Your task to perform on an android device: Open ESPN.com Image 0: 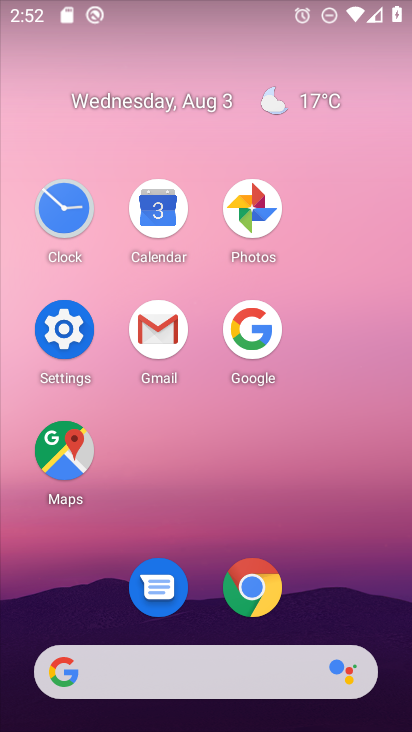
Step 0: click (241, 586)
Your task to perform on an android device: Open ESPN.com Image 1: 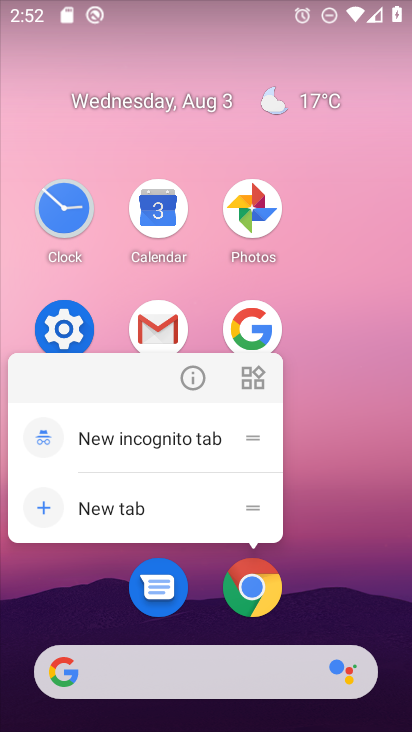
Step 1: click (251, 576)
Your task to perform on an android device: Open ESPN.com Image 2: 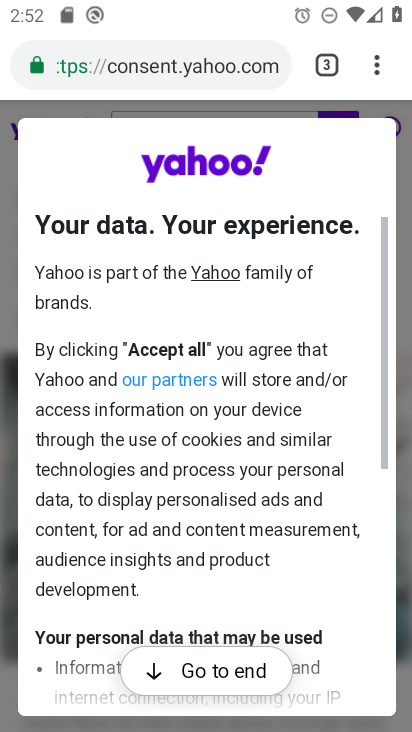
Step 2: click (326, 68)
Your task to perform on an android device: Open ESPN.com Image 3: 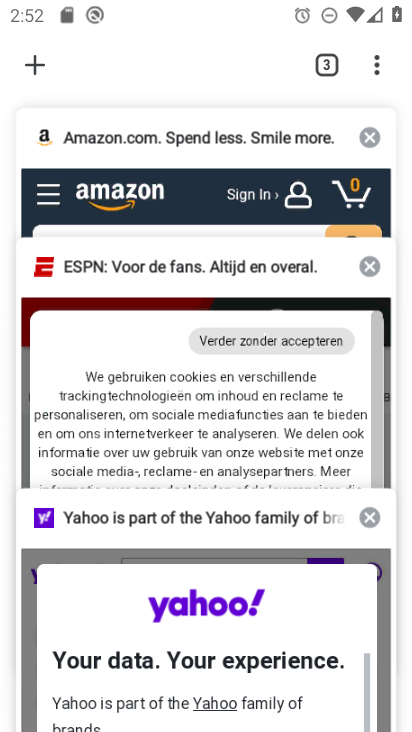
Step 3: click (34, 63)
Your task to perform on an android device: Open ESPN.com Image 4: 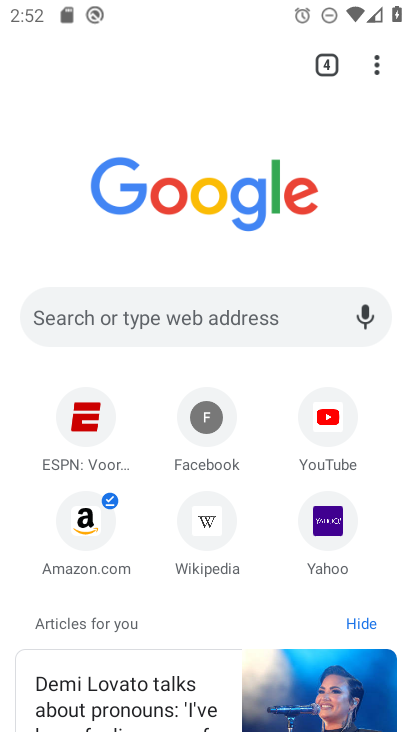
Step 4: click (102, 414)
Your task to perform on an android device: Open ESPN.com Image 5: 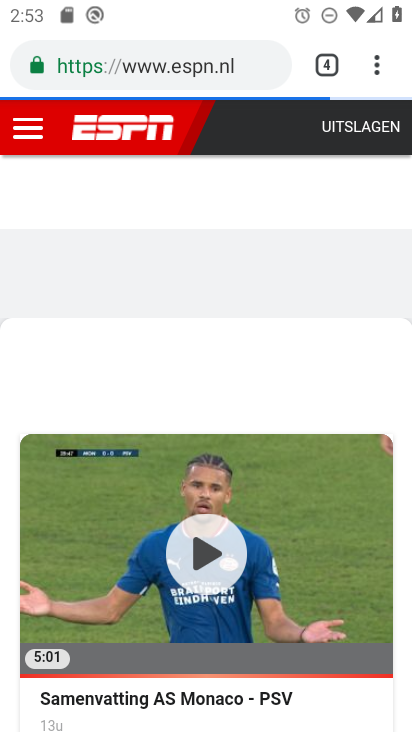
Step 5: task complete